Your task to perform on an android device: Go to accessibility settings Image 0: 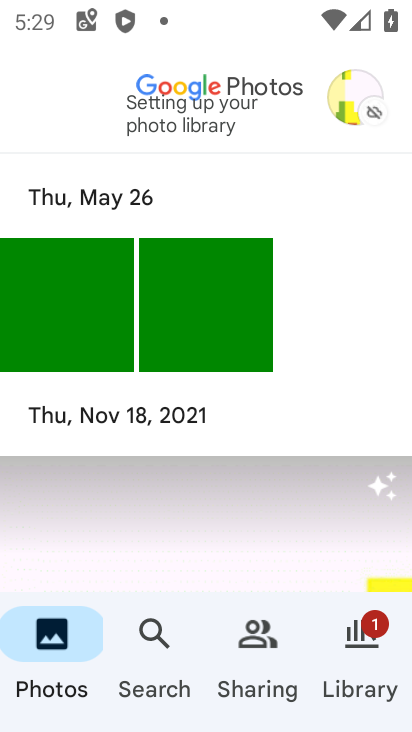
Step 0: press home button
Your task to perform on an android device: Go to accessibility settings Image 1: 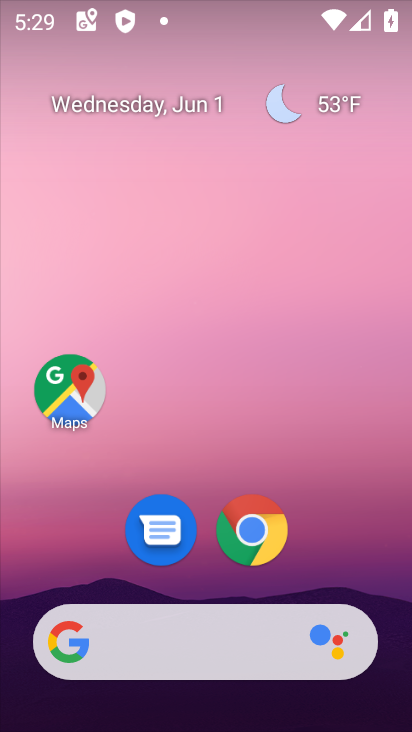
Step 1: drag from (215, 567) to (215, 81)
Your task to perform on an android device: Go to accessibility settings Image 2: 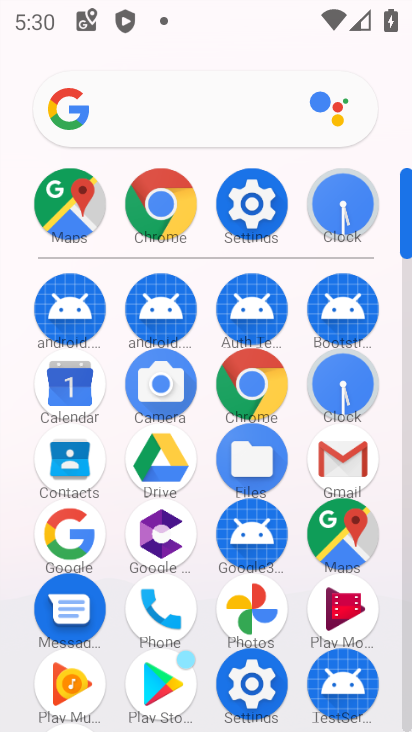
Step 2: click (251, 208)
Your task to perform on an android device: Go to accessibility settings Image 3: 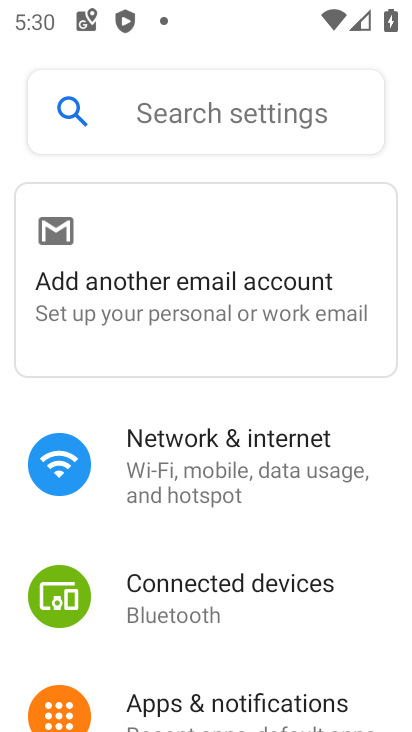
Step 3: drag from (226, 651) to (272, 223)
Your task to perform on an android device: Go to accessibility settings Image 4: 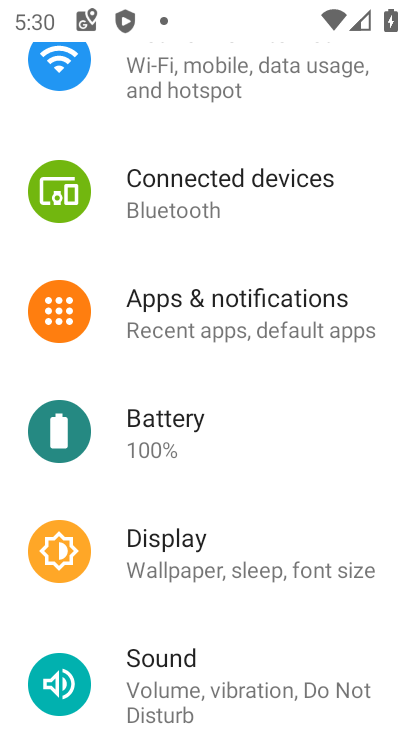
Step 4: drag from (235, 681) to (231, 393)
Your task to perform on an android device: Go to accessibility settings Image 5: 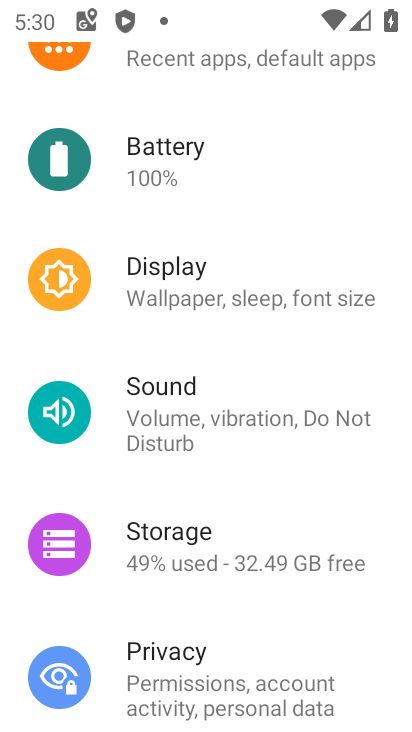
Step 5: drag from (219, 662) to (219, 314)
Your task to perform on an android device: Go to accessibility settings Image 6: 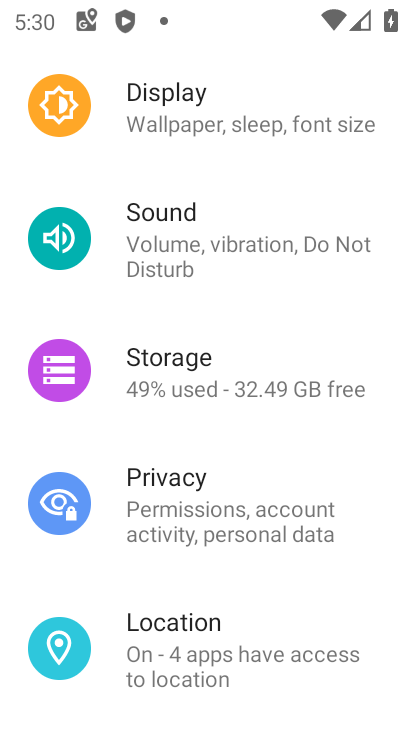
Step 6: drag from (216, 584) to (223, 261)
Your task to perform on an android device: Go to accessibility settings Image 7: 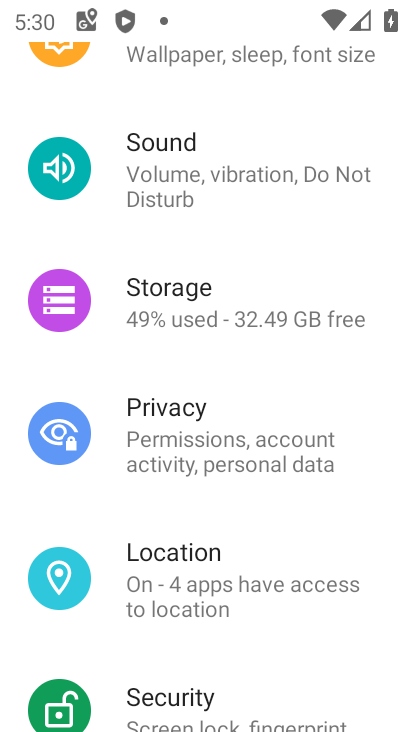
Step 7: drag from (219, 641) to (209, 288)
Your task to perform on an android device: Go to accessibility settings Image 8: 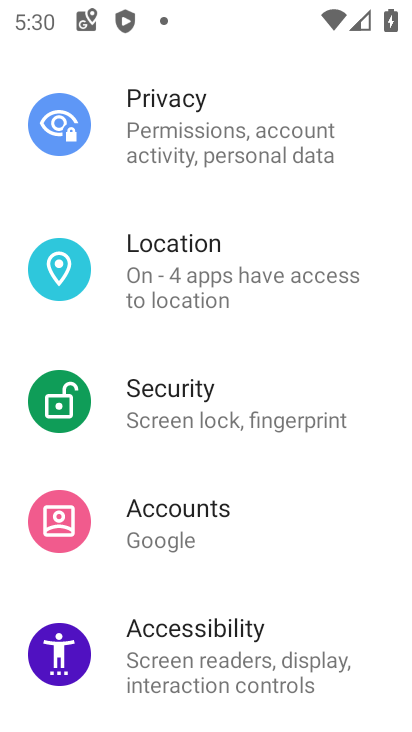
Step 8: click (215, 641)
Your task to perform on an android device: Go to accessibility settings Image 9: 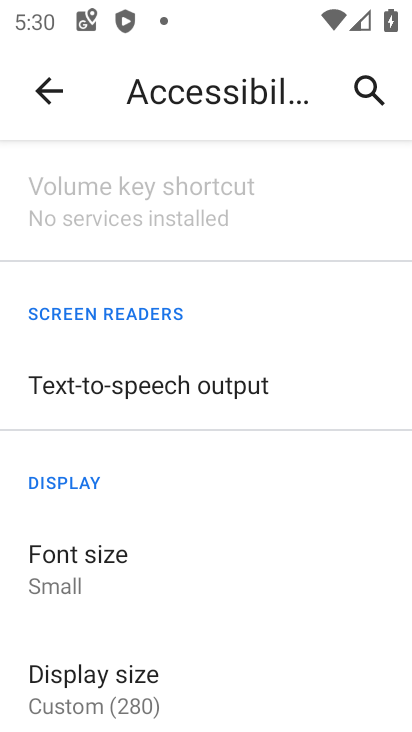
Step 9: task complete